Your task to perform on an android device: check android version Image 0: 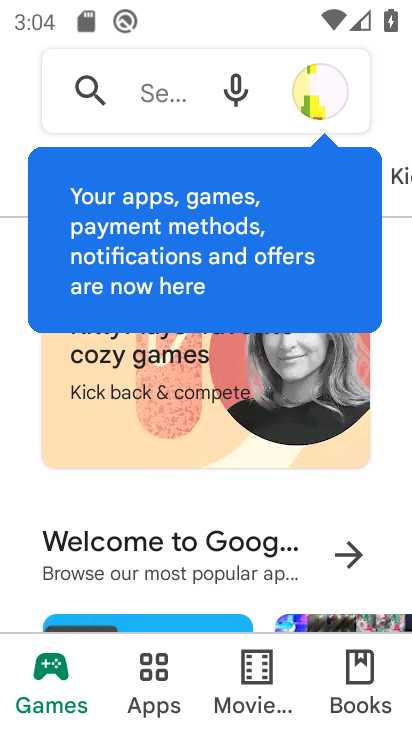
Step 0: press home button
Your task to perform on an android device: check android version Image 1: 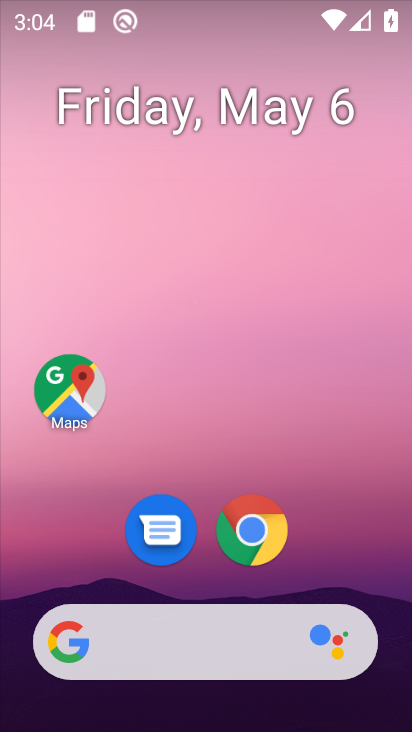
Step 1: drag from (323, 557) to (290, 0)
Your task to perform on an android device: check android version Image 2: 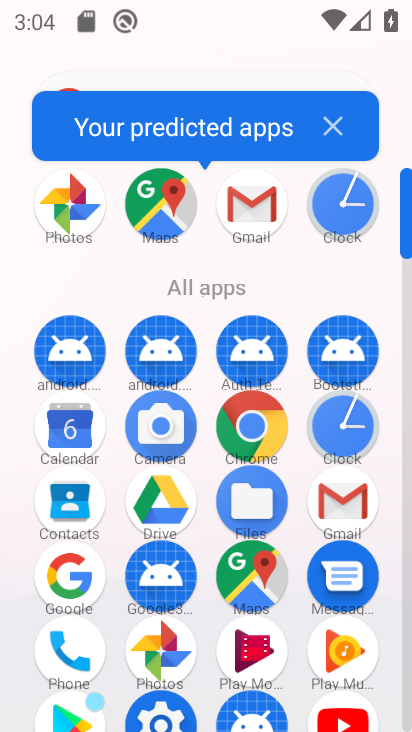
Step 2: drag from (303, 574) to (252, 89)
Your task to perform on an android device: check android version Image 3: 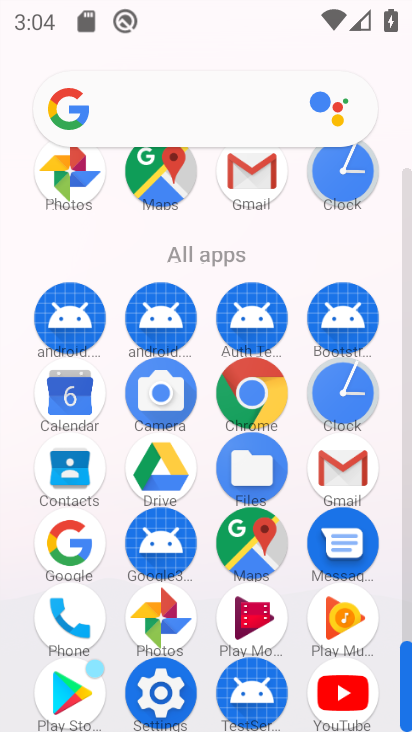
Step 3: click (158, 650)
Your task to perform on an android device: check android version Image 4: 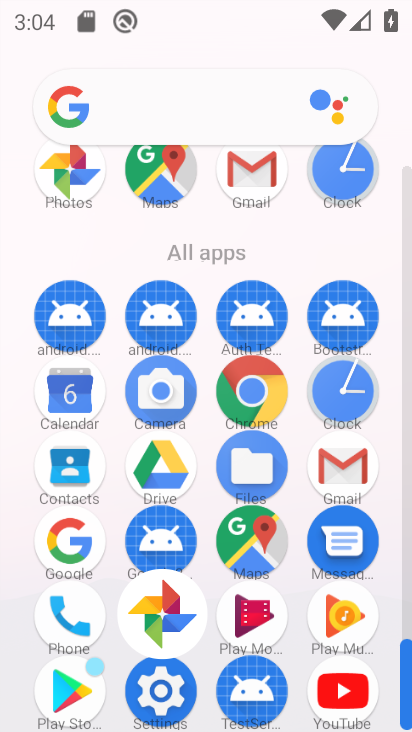
Step 4: click (159, 675)
Your task to perform on an android device: check android version Image 5: 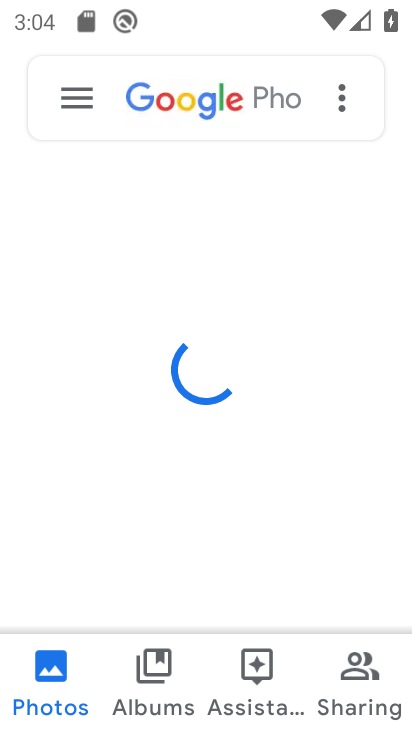
Step 5: press back button
Your task to perform on an android device: check android version Image 6: 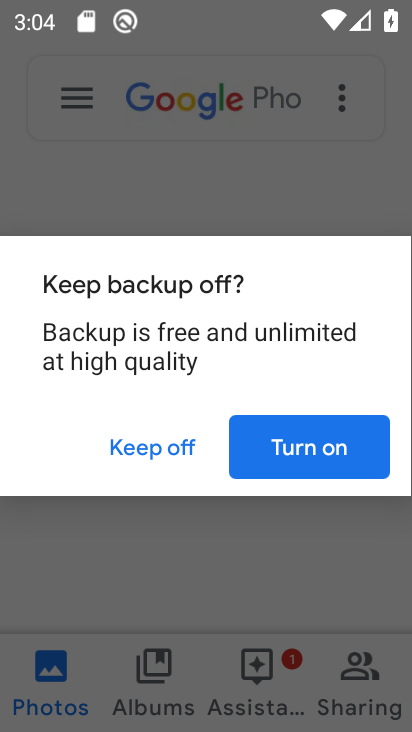
Step 6: press home button
Your task to perform on an android device: check android version Image 7: 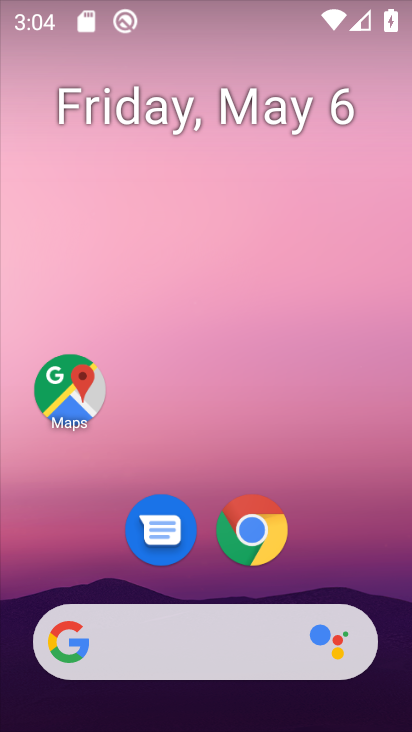
Step 7: click (302, 181)
Your task to perform on an android device: check android version Image 8: 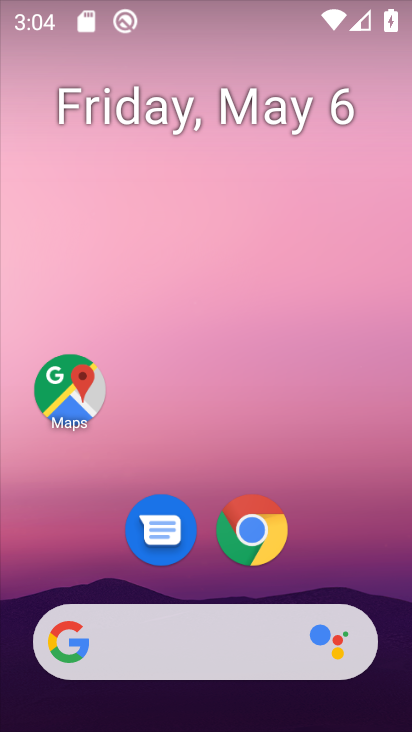
Step 8: drag from (344, 564) to (305, 194)
Your task to perform on an android device: check android version Image 9: 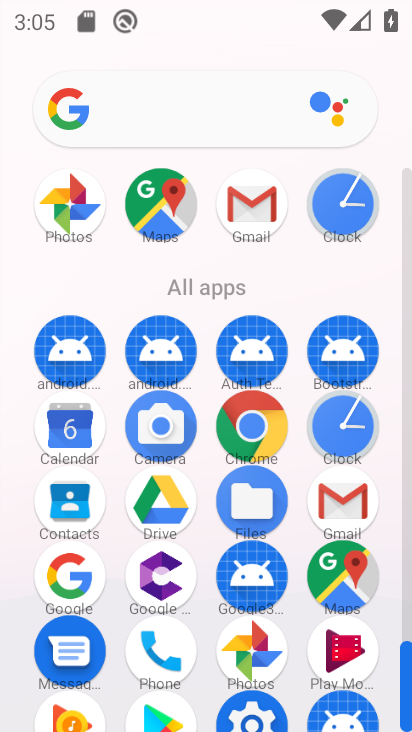
Step 9: click (246, 714)
Your task to perform on an android device: check android version Image 10: 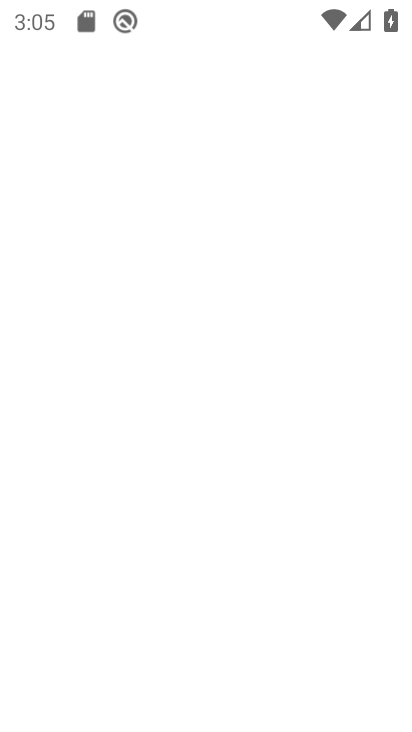
Step 10: click (266, 704)
Your task to perform on an android device: check android version Image 11: 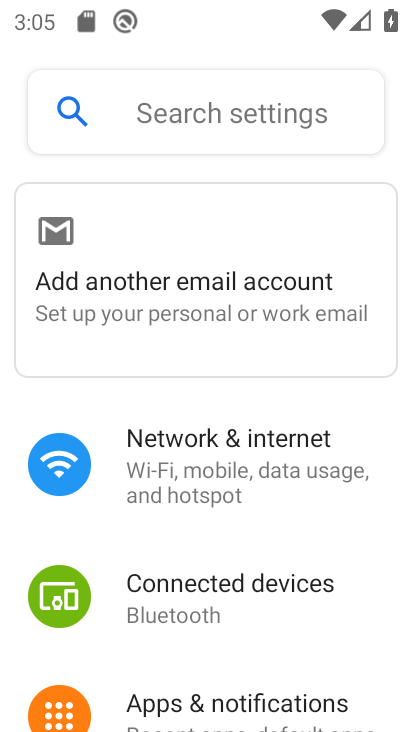
Step 11: click (242, 715)
Your task to perform on an android device: check android version Image 12: 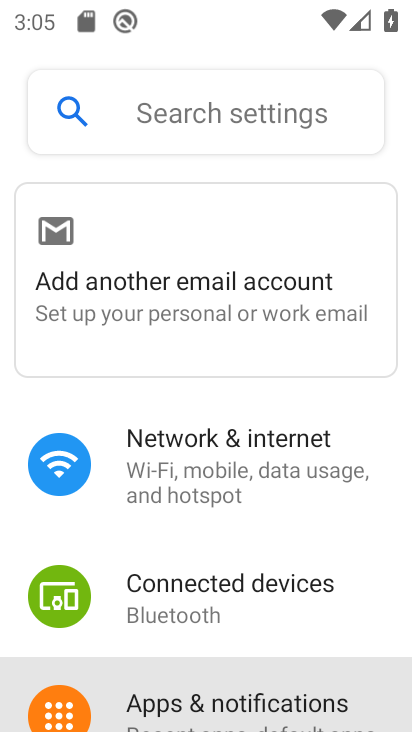
Step 12: click (238, 701)
Your task to perform on an android device: check android version Image 13: 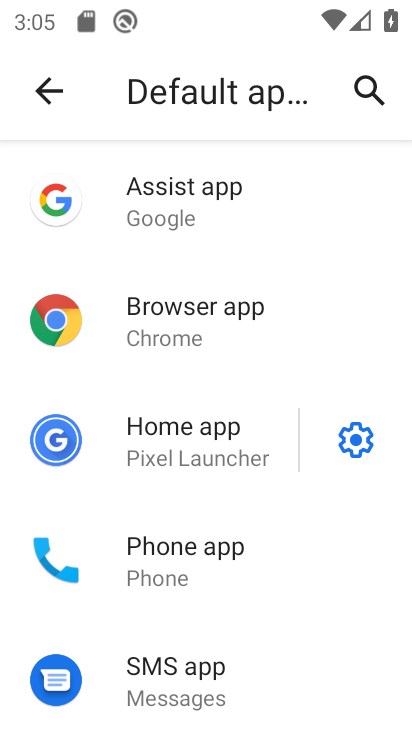
Step 13: click (55, 81)
Your task to perform on an android device: check android version Image 14: 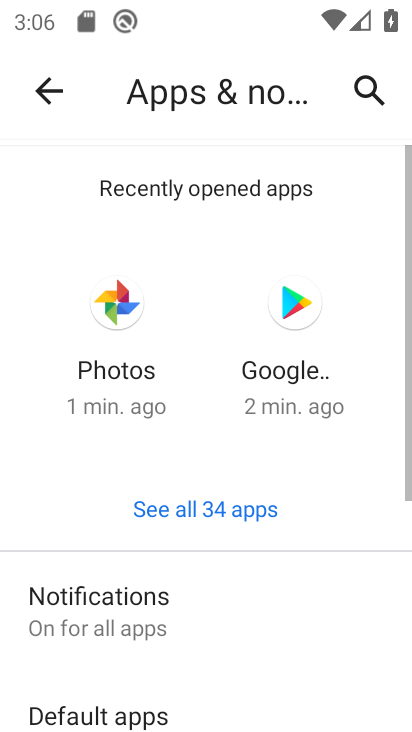
Step 14: click (52, 93)
Your task to perform on an android device: check android version Image 15: 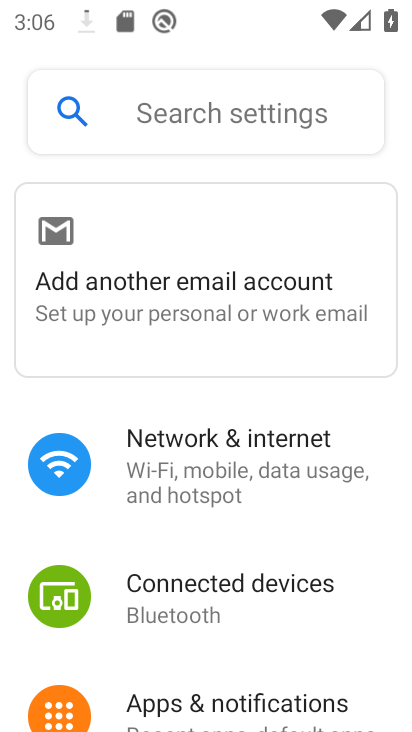
Step 15: drag from (211, 610) to (319, 164)
Your task to perform on an android device: check android version Image 16: 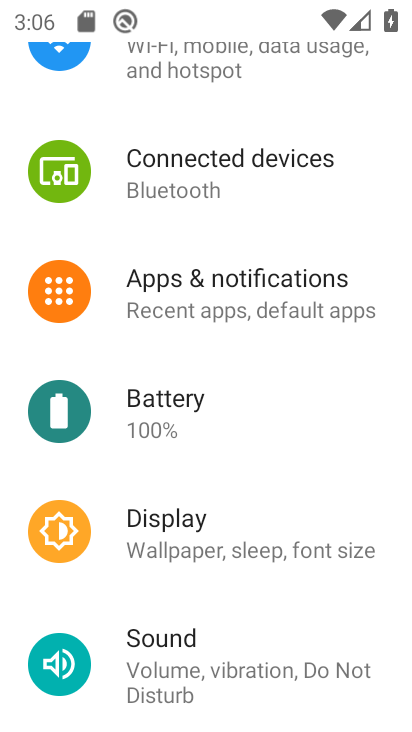
Step 16: drag from (224, 589) to (288, 70)
Your task to perform on an android device: check android version Image 17: 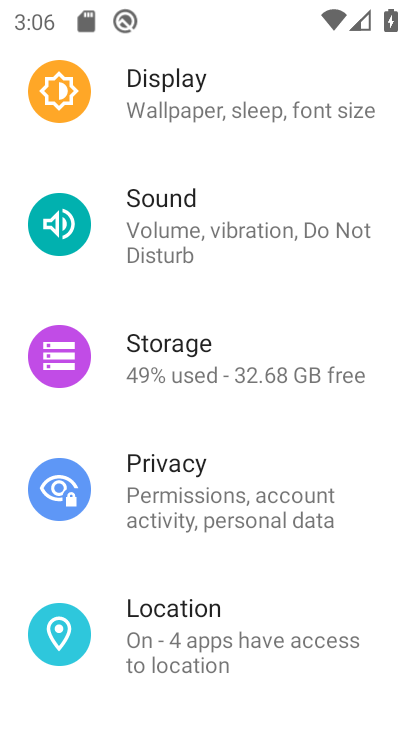
Step 17: drag from (178, 648) to (241, 209)
Your task to perform on an android device: check android version Image 18: 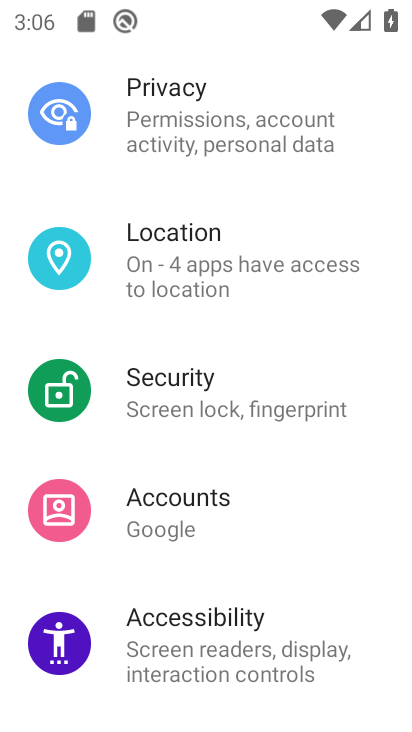
Step 18: drag from (214, 700) to (292, 128)
Your task to perform on an android device: check android version Image 19: 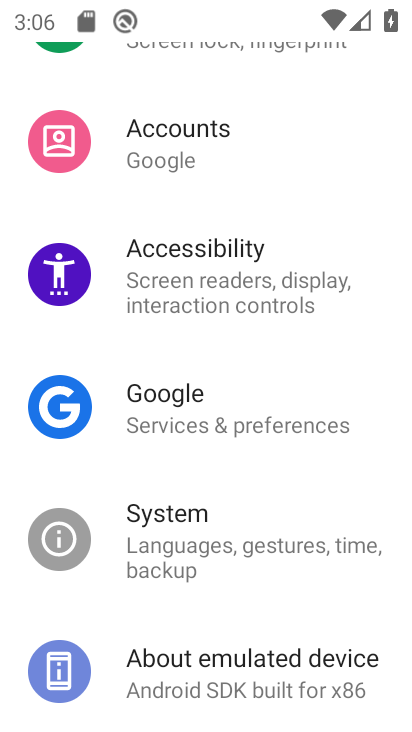
Step 19: click (174, 646)
Your task to perform on an android device: check android version Image 20: 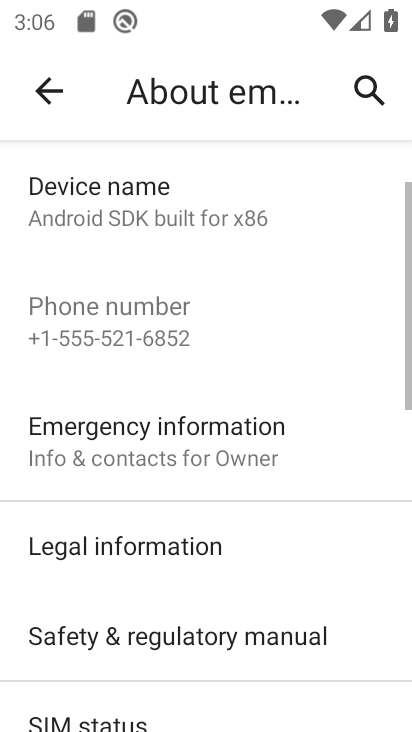
Step 20: drag from (185, 654) to (247, 183)
Your task to perform on an android device: check android version Image 21: 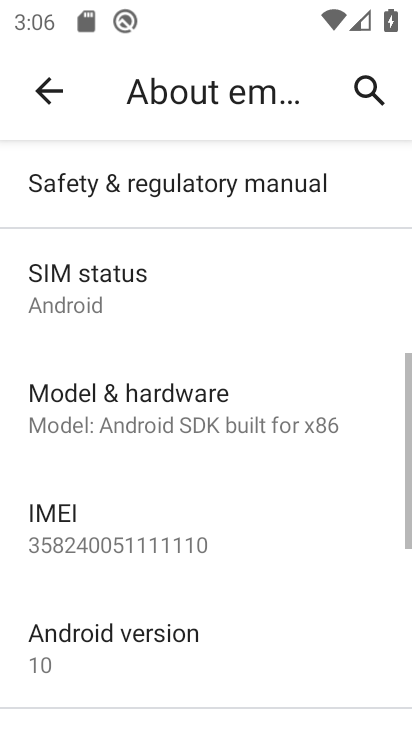
Step 21: click (131, 653)
Your task to perform on an android device: check android version Image 22: 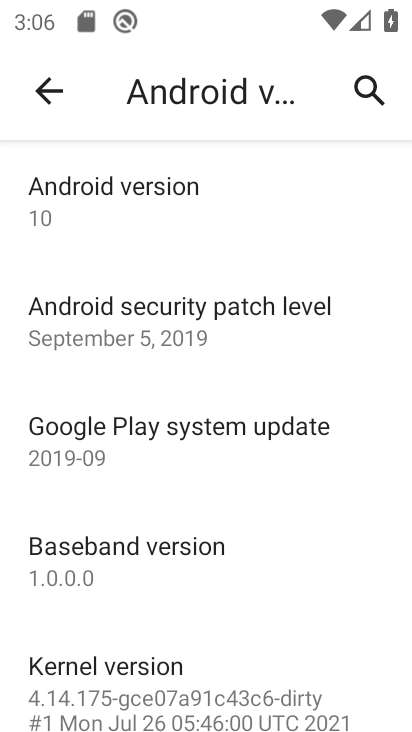
Step 22: task complete